Your task to perform on an android device: Go to sound settings Image 0: 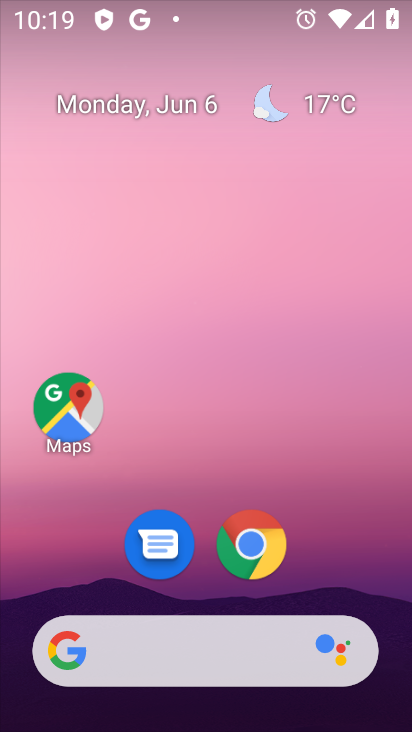
Step 0: drag from (211, 259) to (234, 206)
Your task to perform on an android device: Go to sound settings Image 1: 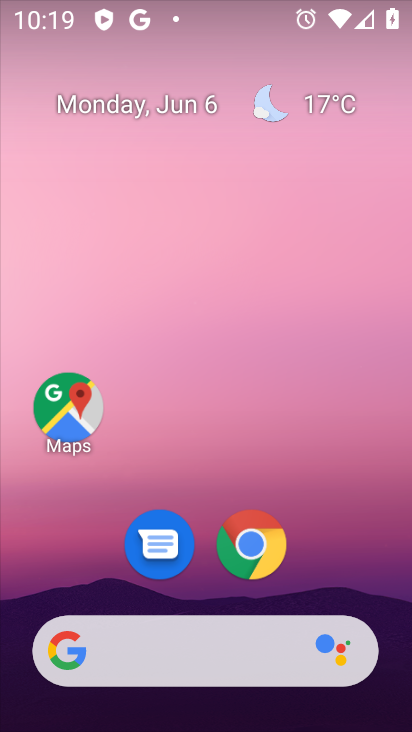
Step 1: drag from (77, 595) to (235, 158)
Your task to perform on an android device: Go to sound settings Image 2: 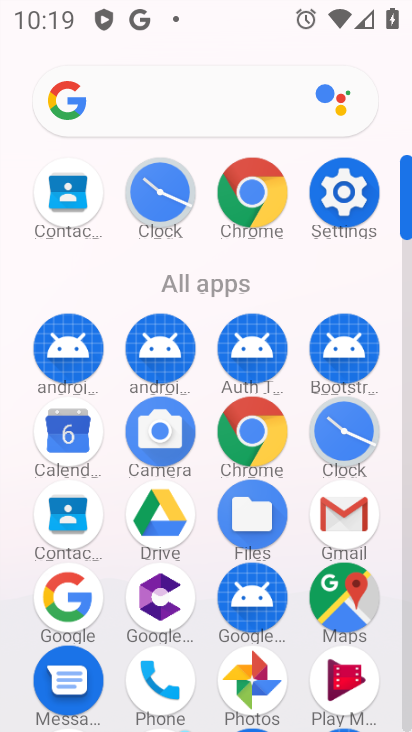
Step 2: drag from (231, 623) to (309, 303)
Your task to perform on an android device: Go to sound settings Image 3: 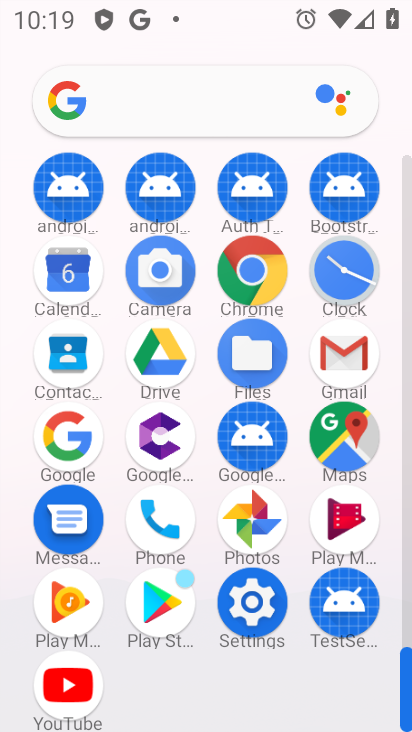
Step 3: click (254, 599)
Your task to perform on an android device: Go to sound settings Image 4: 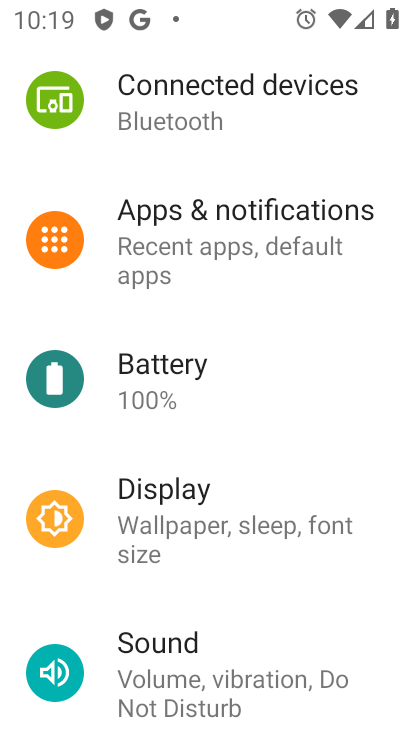
Step 4: click (218, 663)
Your task to perform on an android device: Go to sound settings Image 5: 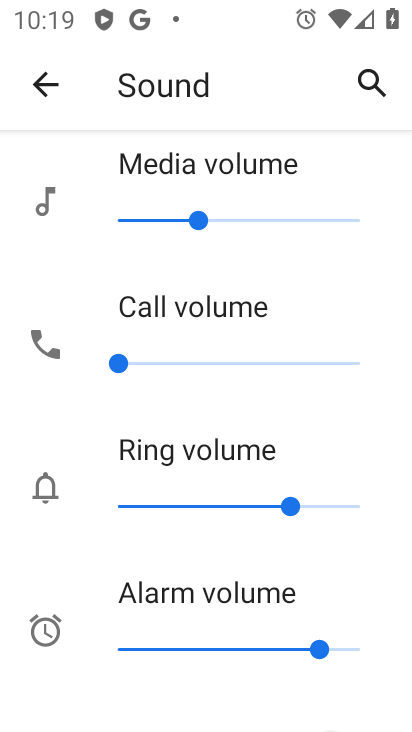
Step 5: task complete